Your task to perform on an android device: Open eBay Image 0: 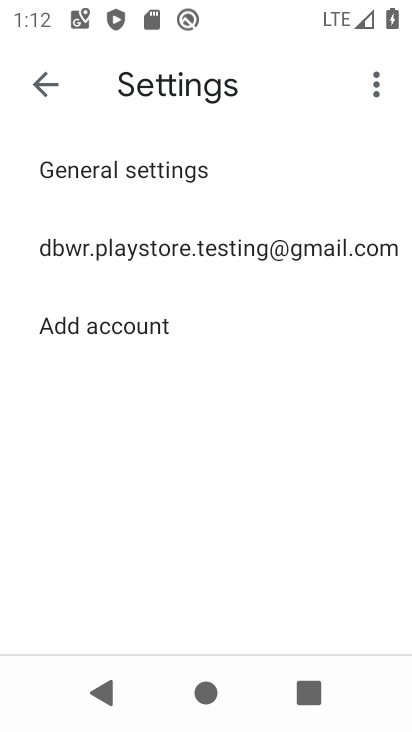
Step 0: press home button
Your task to perform on an android device: Open eBay Image 1: 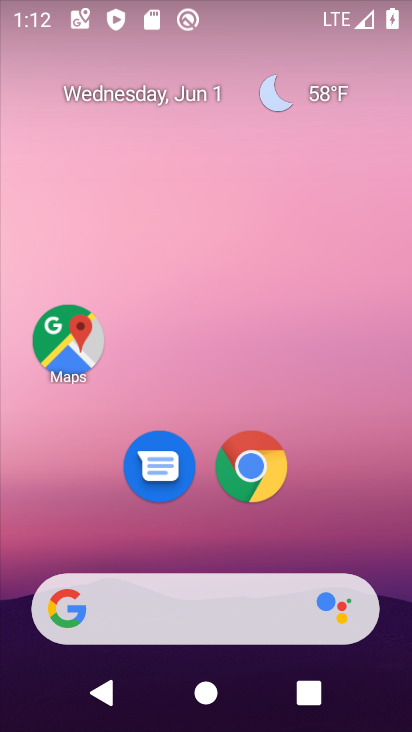
Step 1: click (264, 470)
Your task to perform on an android device: Open eBay Image 2: 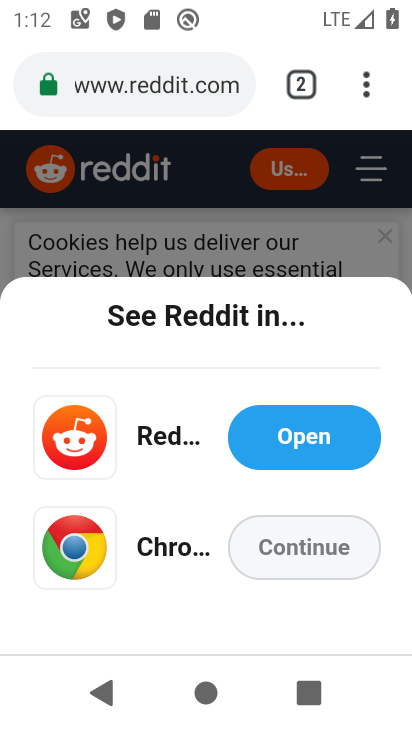
Step 2: click (215, 76)
Your task to perform on an android device: Open eBay Image 3: 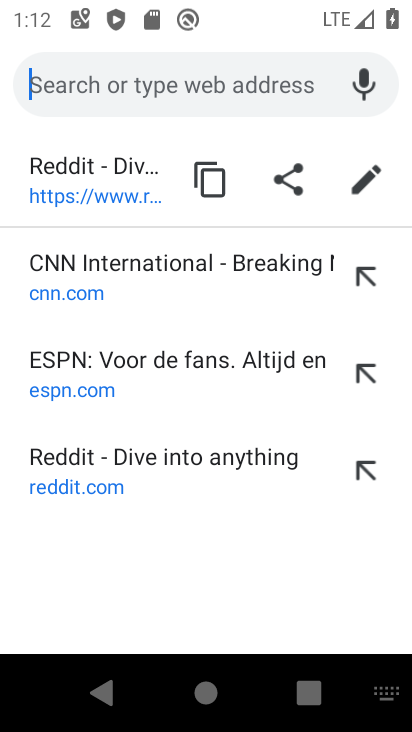
Step 3: click (215, 76)
Your task to perform on an android device: Open eBay Image 4: 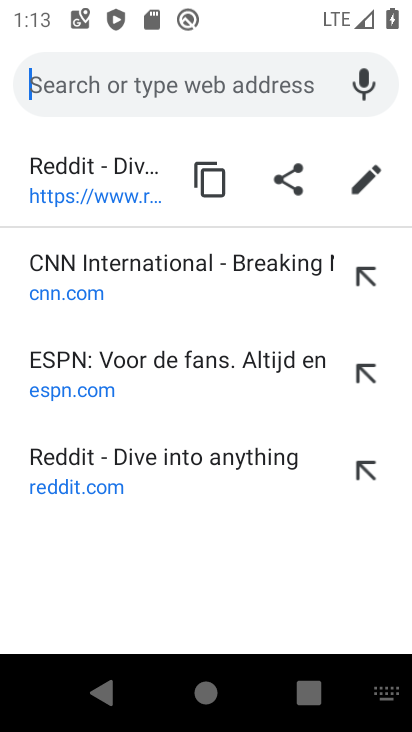
Step 4: type "e"
Your task to perform on an android device: Open eBay Image 5: 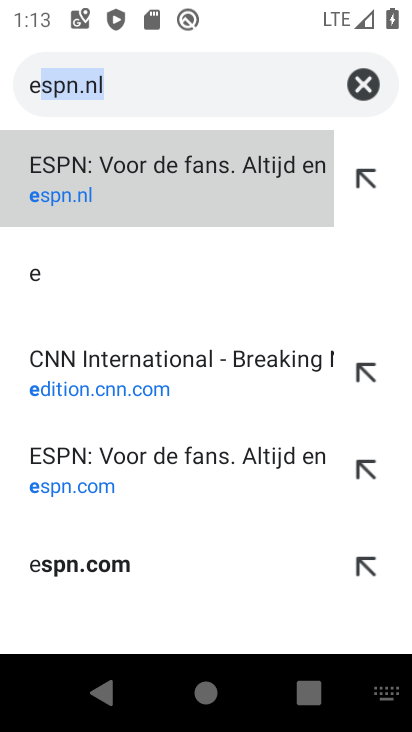
Step 5: type "bay"
Your task to perform on an android device: Open eBay Image 6: 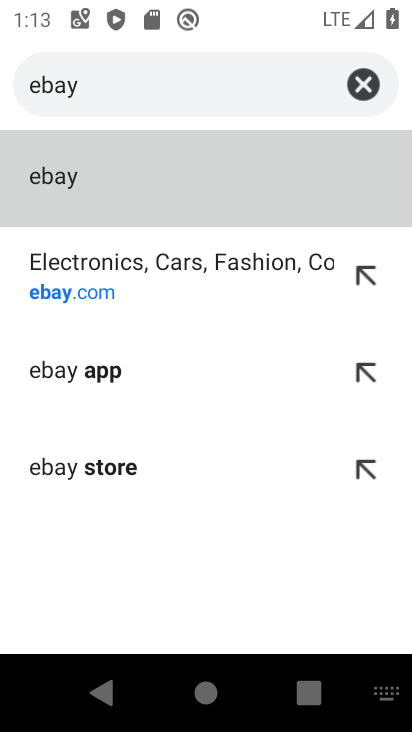
Step 6: click (113, 290)
Your task to perform on an android device: Open eBay Image 7: 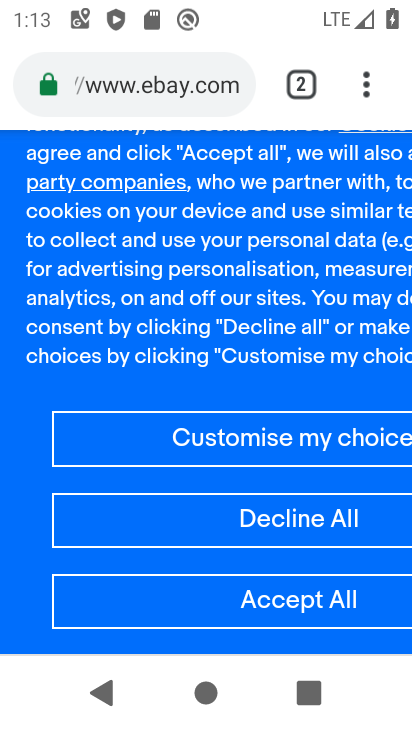
Step 7: click (323, 594)
Your task to perform on an android device: Open eBay Image 8: 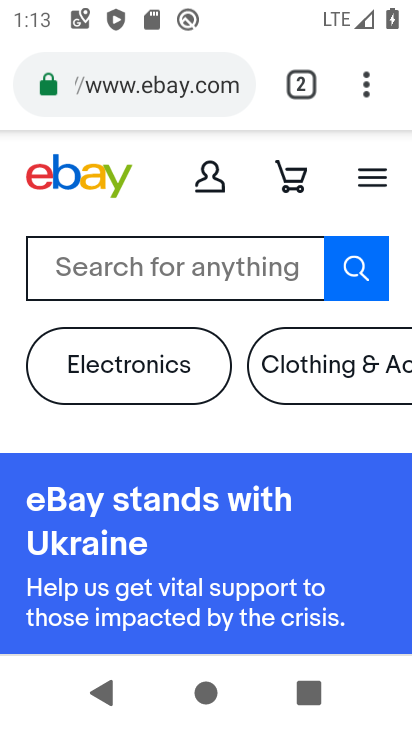
Step 8: task complete